Your task to perform on an android device: Open display settings Image 0: 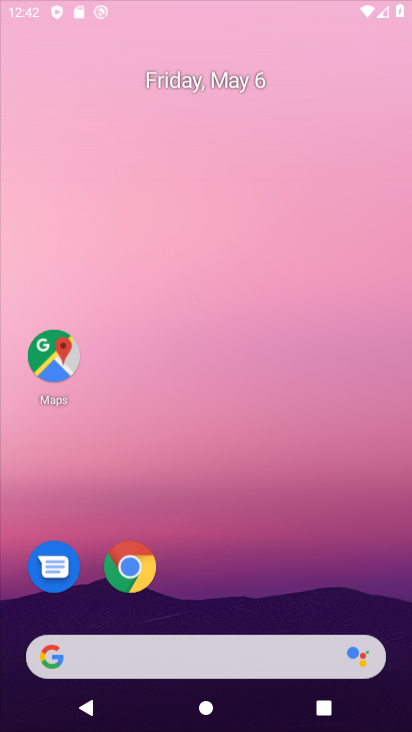
Step 0: drag from (289, 516) to (260, 349)
Your task to perform on an android device: Open display settings Image 1: 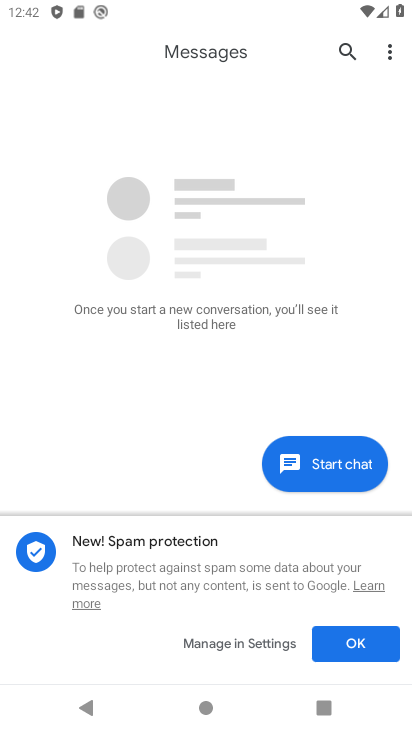
Step 1: press home button
Your task to perform on an android device: Open display settings Image 2: 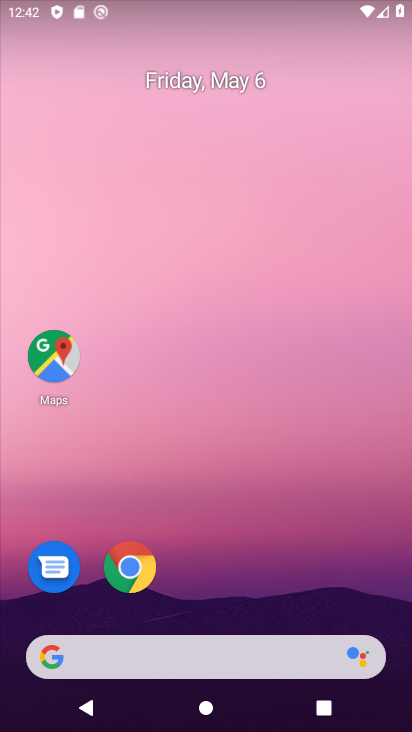
Step 2: drag from (253, 692) to (280, 267)
Your task to perform on an android device: Open display settings Image 3: 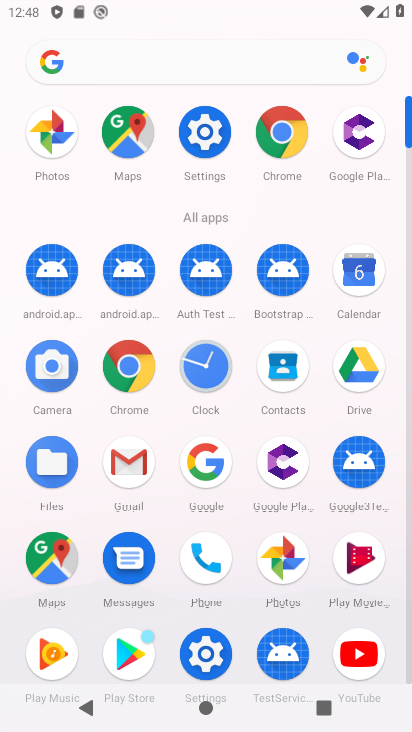
Step 3: click (197, 643)
Your task to perform on an android device: Open display settings Image 4: 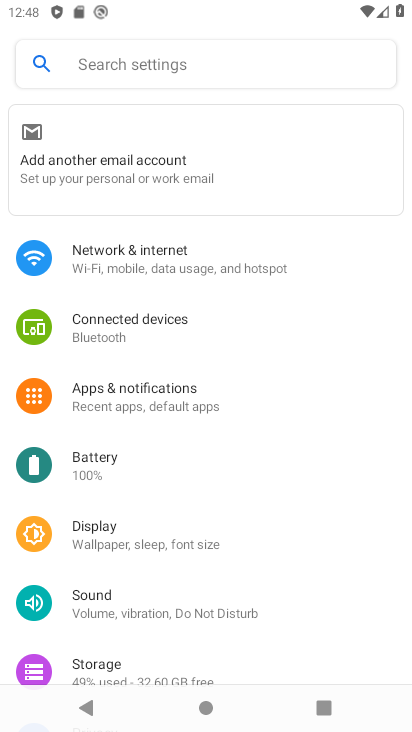
Step 4: click (132, 526)
Your task to perform on an android device: Open display settings Image 5: 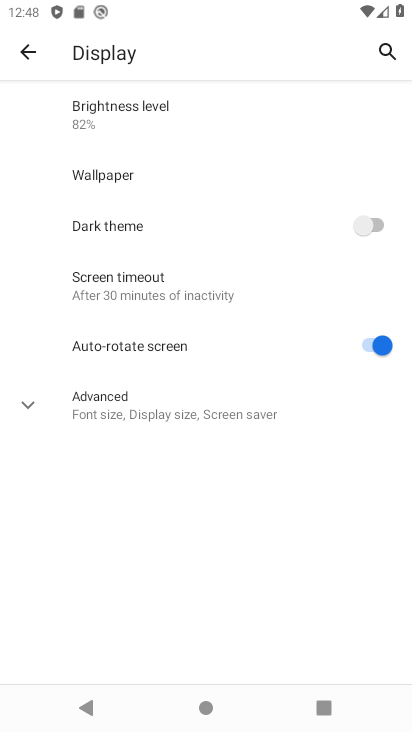
Step 5: task complete